Your task to perform on an android device: turn on airplane mode Image 0: 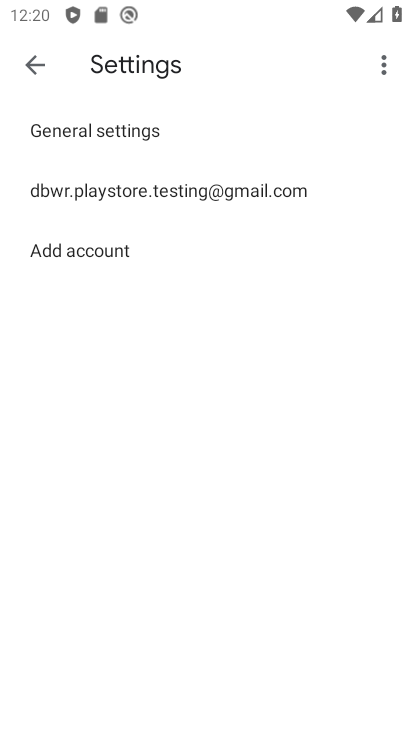
Step 0: press home button
Your task to perform on an android device: turn on airplane mode Image 1: 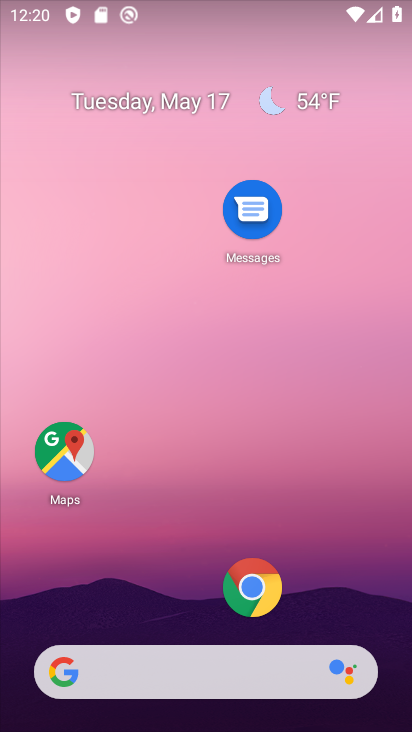
Step 1: drag from (145, 587) to (334, 0)
Your task to perform on an android device: turn on airplane mode Image 2: 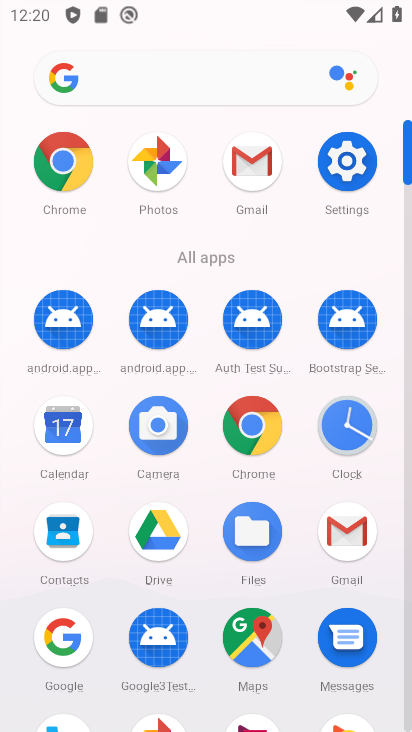
Step 2: click (338, 170)
Your task to perform on an android device: turn on airplane mode Image 3: 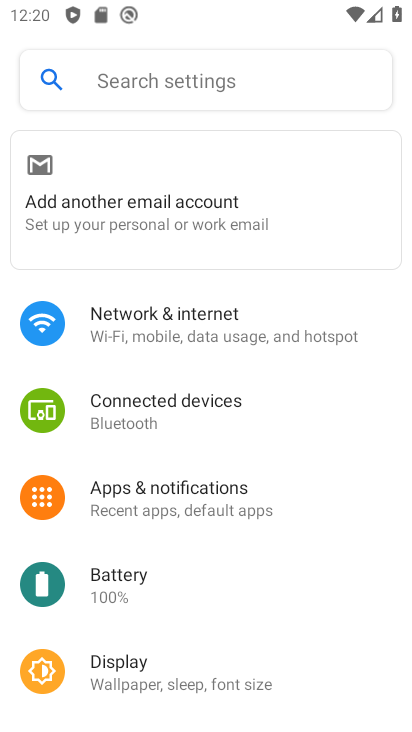
Step 3: click (207, 335)
Your task to perform on an android device: turn on airplane mode Image 4: 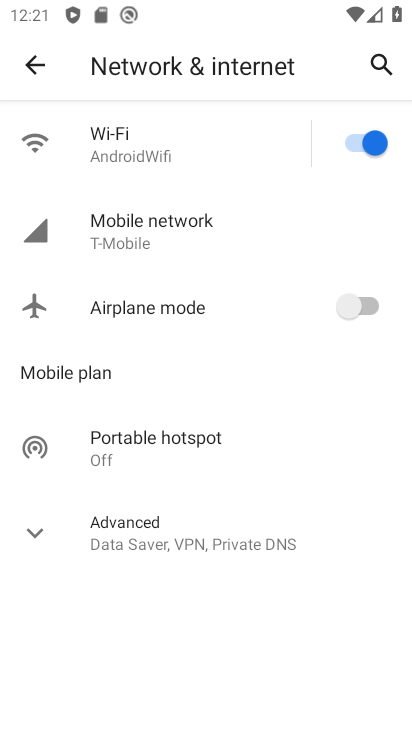
Step 4: click (393, 297)
Your task to perform on an android device: turn on airplane mode Image 5: 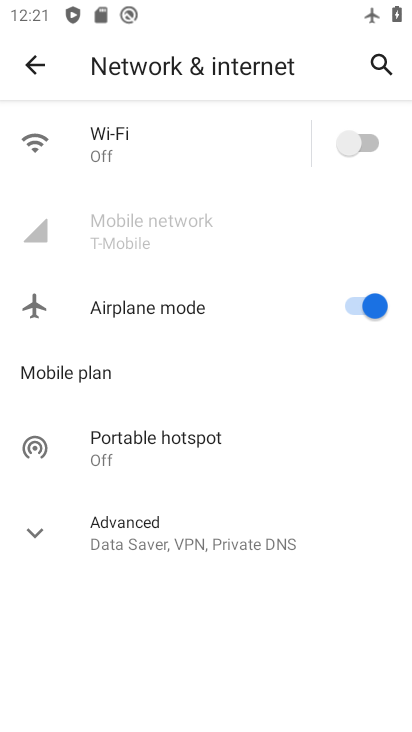
Step 5: task complete